Your task to perform on an android device: install app "Google Translate" Image 0: 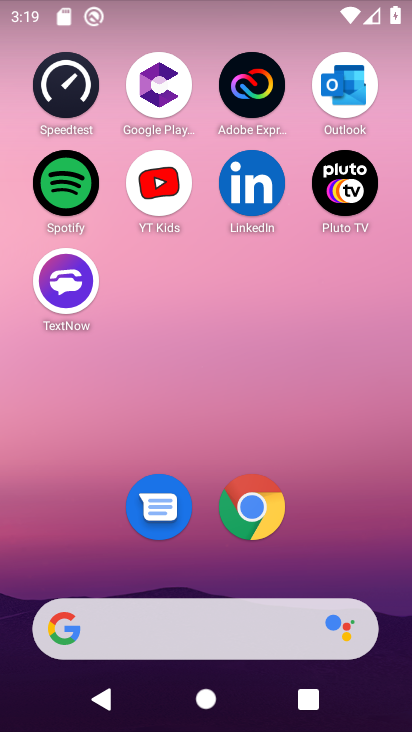
Step 0: drag from (144, 632) to (226, 14)
Your task to perform on an android device: install app "Google Translate" Image 1: 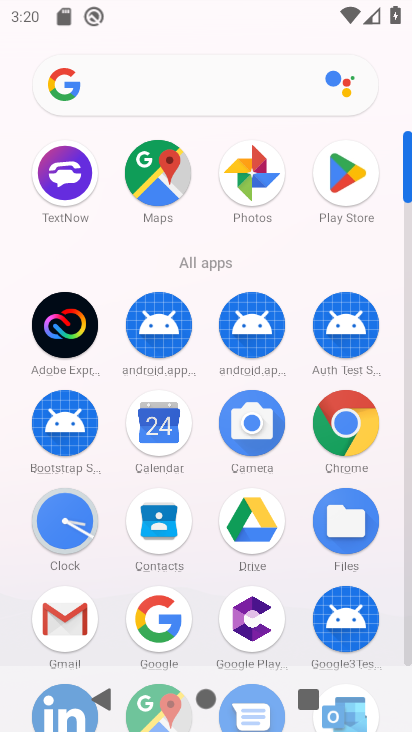
Step 1: click (348, 174)
Your task to perform on an android device: install app "Google Translate" Image 2: 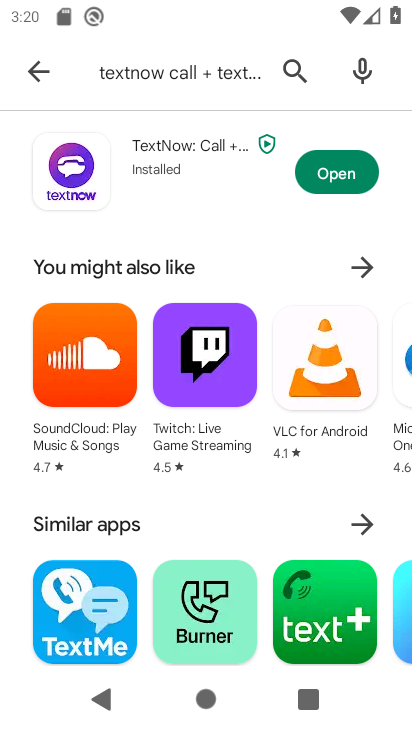
Step 2: press back button
Your task to perform on an android device: install app "Google Translate" Image 3: 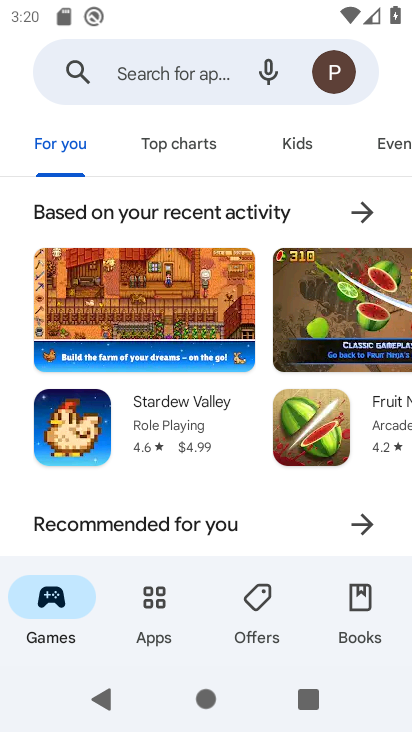
Step 3: click (163, 74)
Your task to perform on an android device: install app "Google Translate" Image 4: 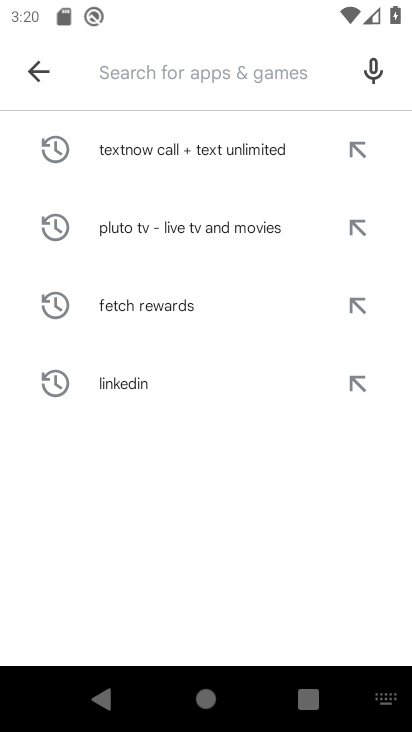
Step 4: type "Google Translate"
Your task to perform on an android device: install app "Google Translate" Image 5: 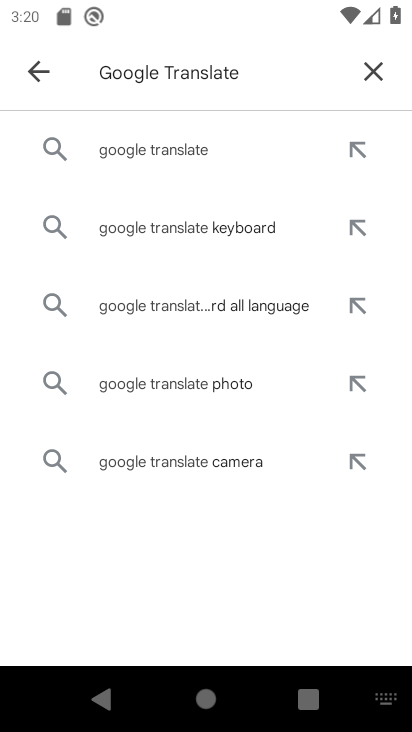
Step 5: click (157, 154)
Your task to perform on an android device: install app "Google Translate" Image 6: 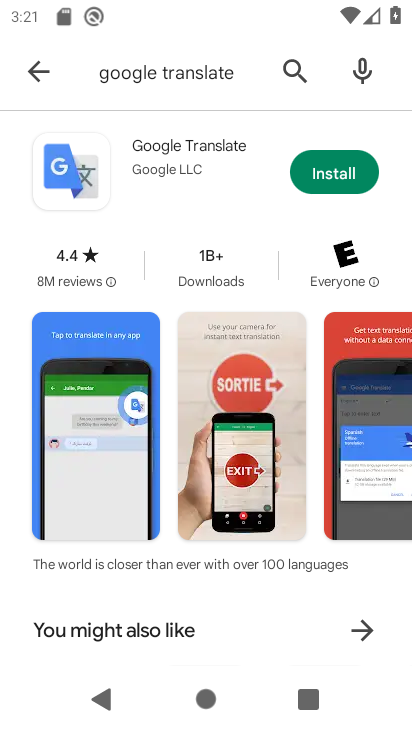
Step 6: click (325, 174)
Your task to perform on an android device: install app "Google Translate" Image 7: 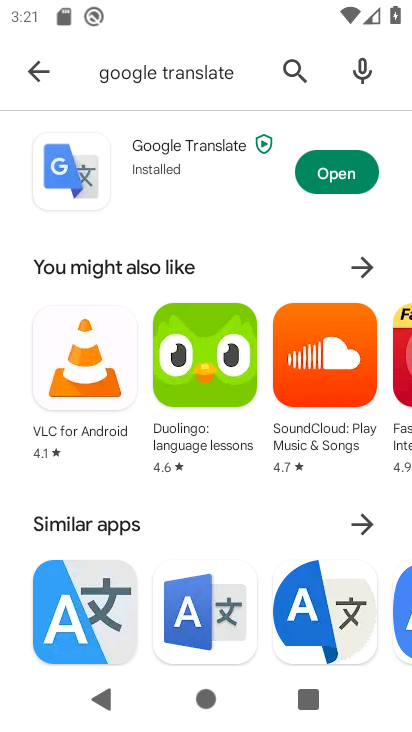
Step 7: task complete